Your task to perform on an android device: Open Google Image 0: 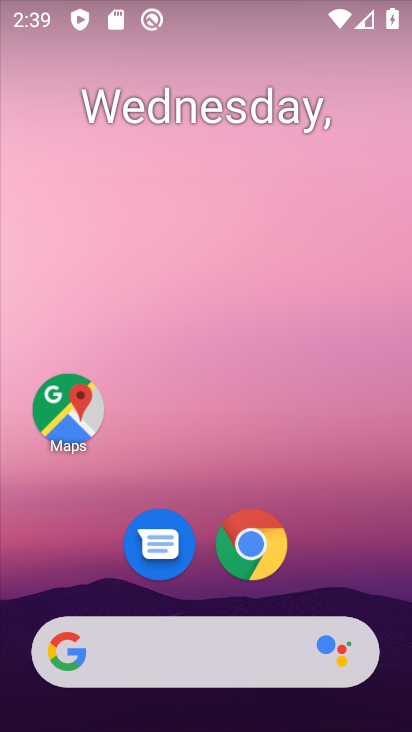
Step 0: drag from (341, 577) to (250, 64)
Your task to perform on an android device: Open Google Image 1: 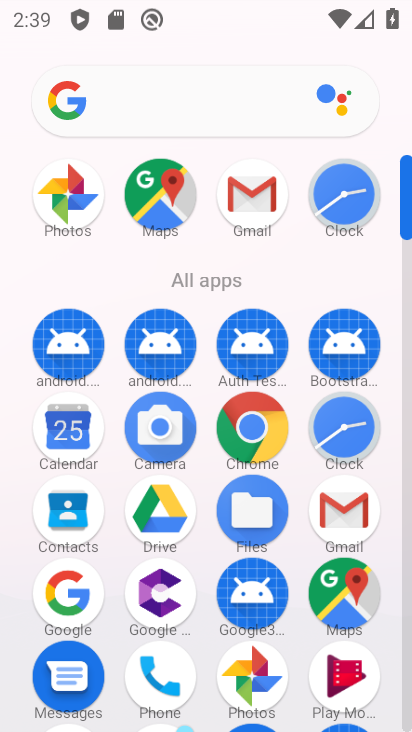
Step 1: click (63, 614)
Your task to perform on an android device: Open Google Image 2: 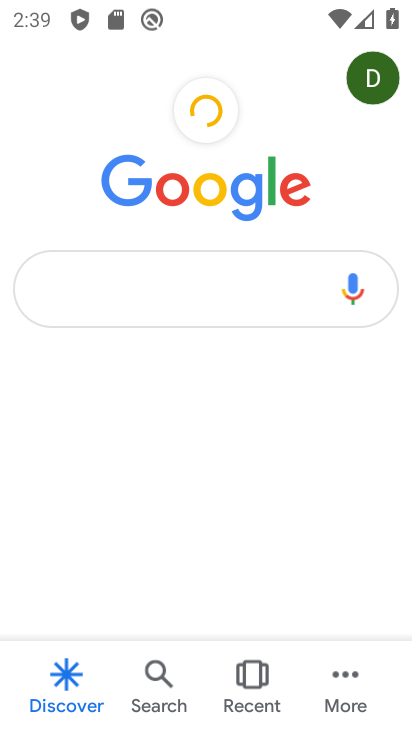
Step 2: task complete